Your task to perform on an android device: find photos in the google photos app Image 0: 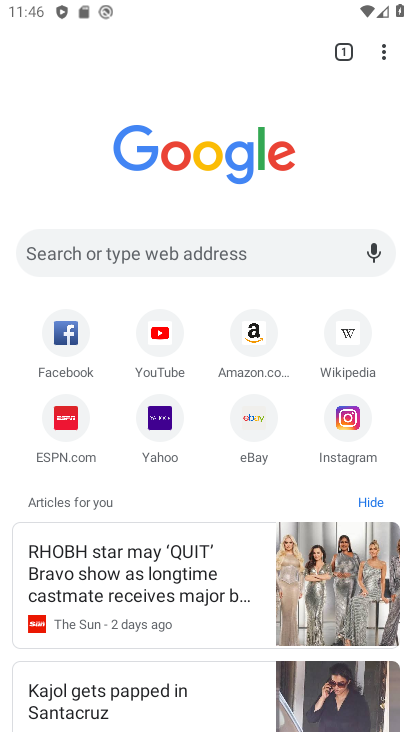
Step 0: press home button
Your task to perform on an android device: find photos in the google photos app Image 1: 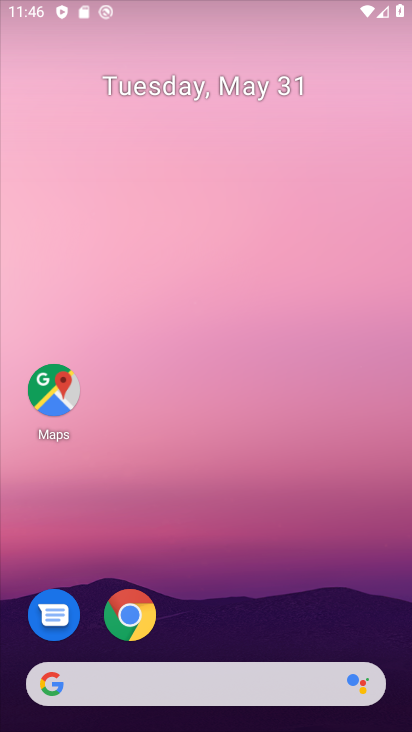
Step 1: drag from (345, 664) to (358, 1)
Your task to perform on an android device: find photos in the google photos app Image 2: 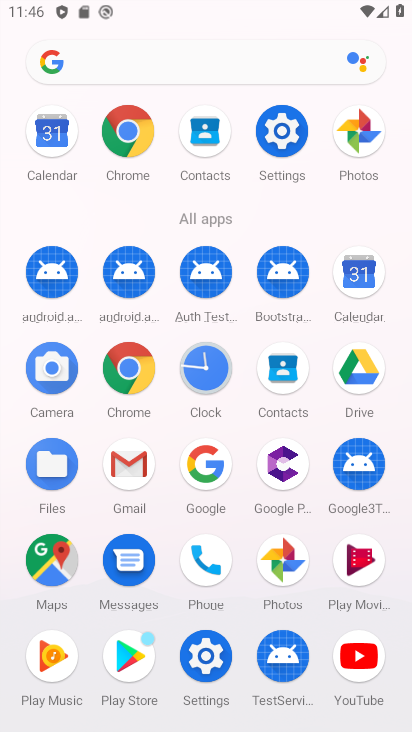
Step 2: click (285, 552)
Your task to perform on an android device: find photos in the google photos app Image 3: 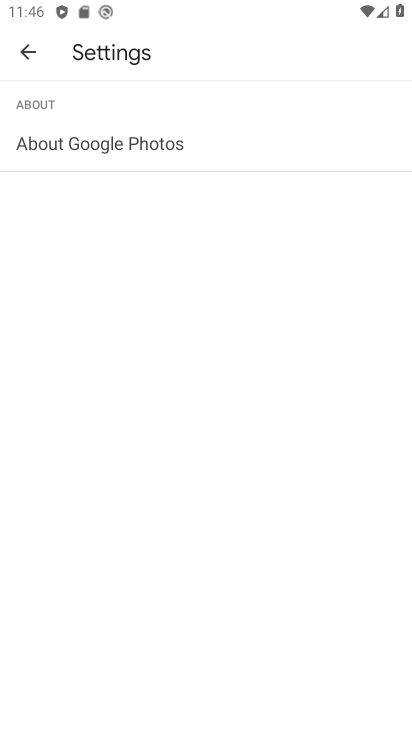
Step 3: press back button
Your task to perform on an android device: find photos in the google photos app Image 4: 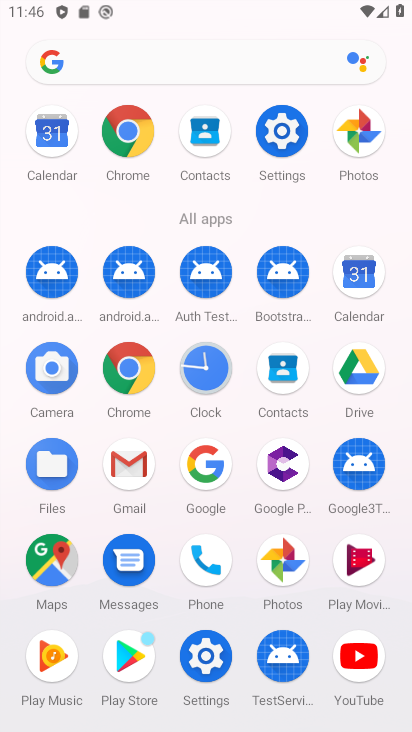
Step 4: click (280, 560)
Your task to perform on an android device: find photos in the google photos app Image 5: 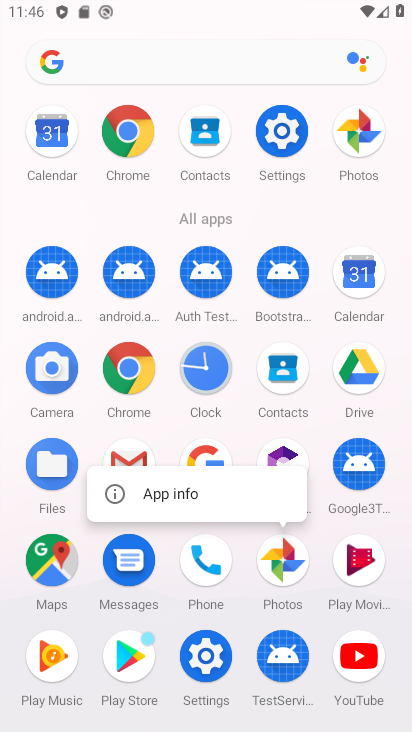
Step 5: click (282, 558)
Your task to perform on an android device: find photos in the google photos app Image 6: 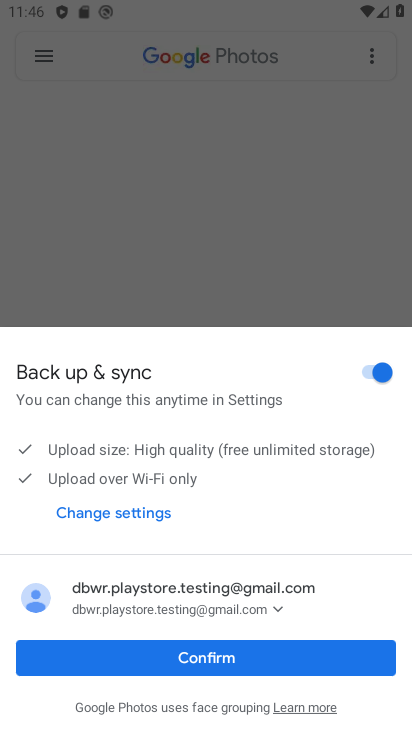
Step 6: click (275, 661)
Your task to perform on an android device: find photos in the google photos app Image 7: 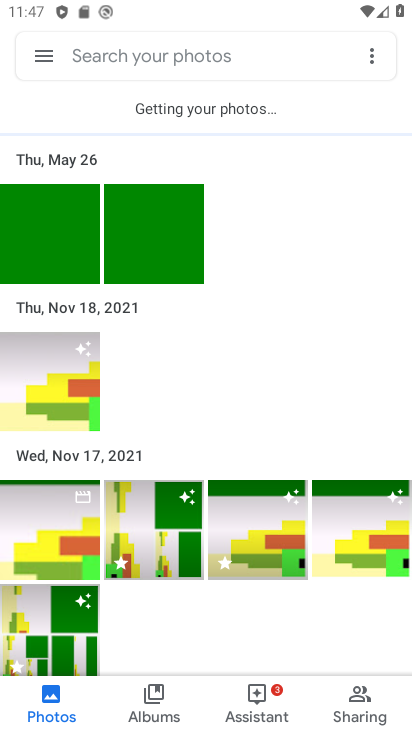
Step 7: task complete